Your task to perform on an android device: Open Amazon Image 0: 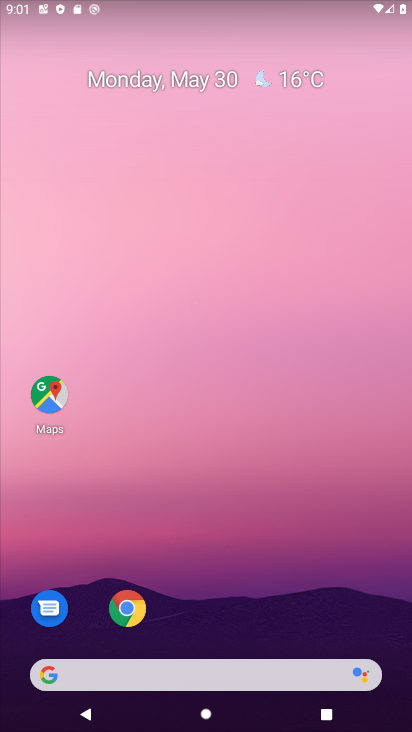
Step 0: click (117, 609)
Your task to perform on an android device: Open Amazon Image 1: 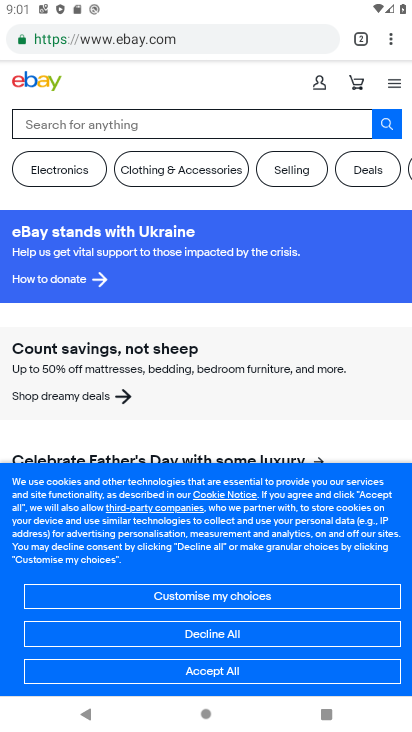
Step 1: click (190, 34)
Your task to perform on an android device: Open Amazon Image 2: 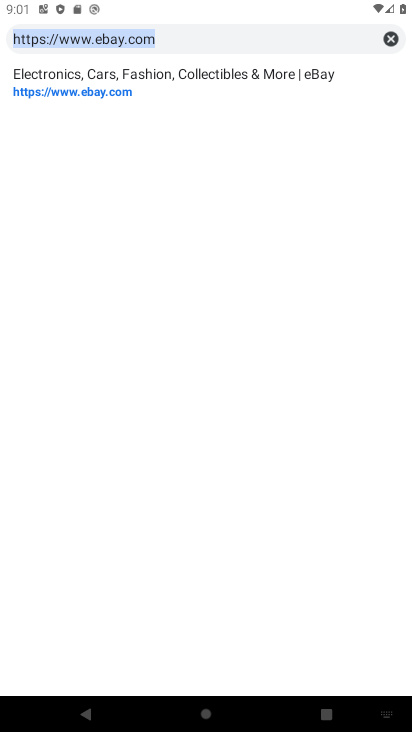
Step 2: click (385, 37)
Your task to perform on an android device: Open Amazon Image 3: 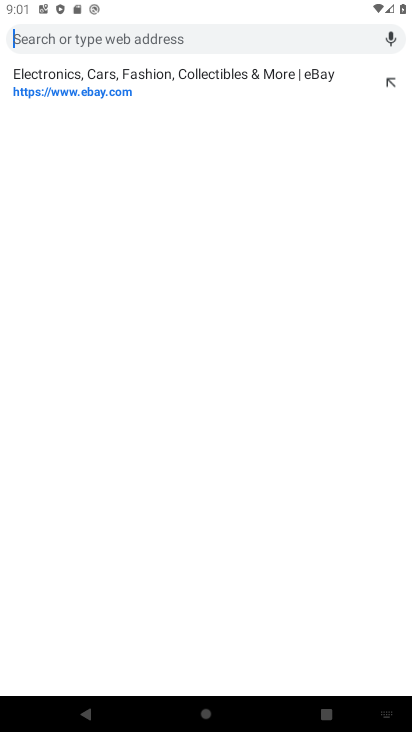
Step 3: type "Amazon"
Your task to perform on an android device: Open Amazon Image 4: 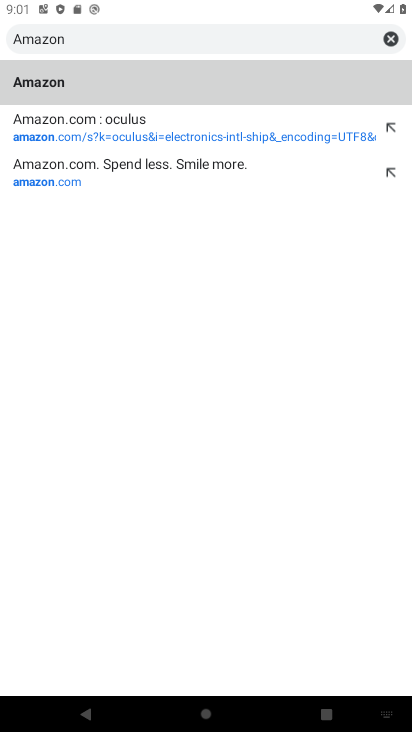
Step 4: click (51, 82)
Your task to perform on an android device: Open Amazon Image 5: 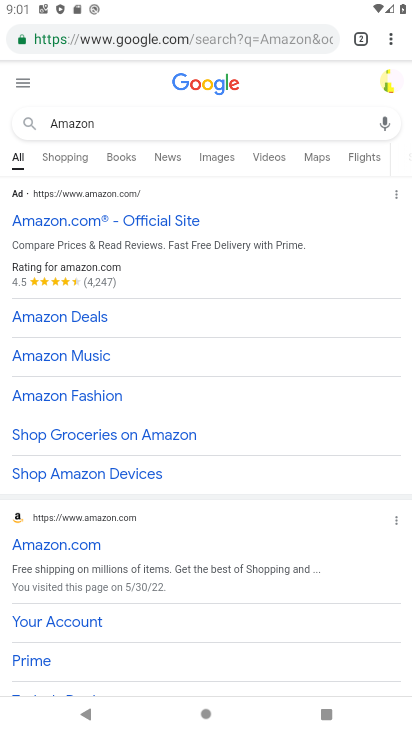
Step 5: task complete